Your task to perform on an android device: Search for sushi restaurants on Maps Image 0: 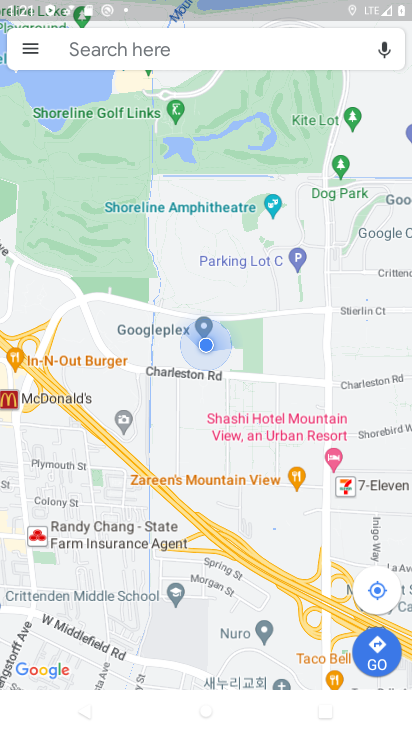
Step 0: click (182, 54)
Your task to perform on an android device: Search for sushi restaurants on Maps Image 1: 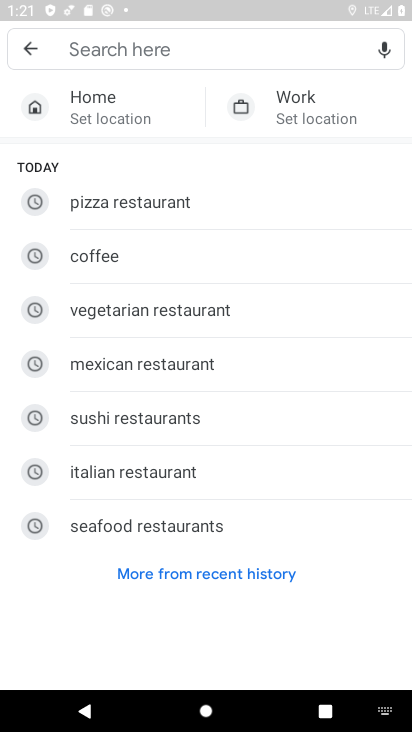
Step 1: type "sushi restaurants"
Your task to perform on an android device: Search for sushi restaurants on Maps Image 2: 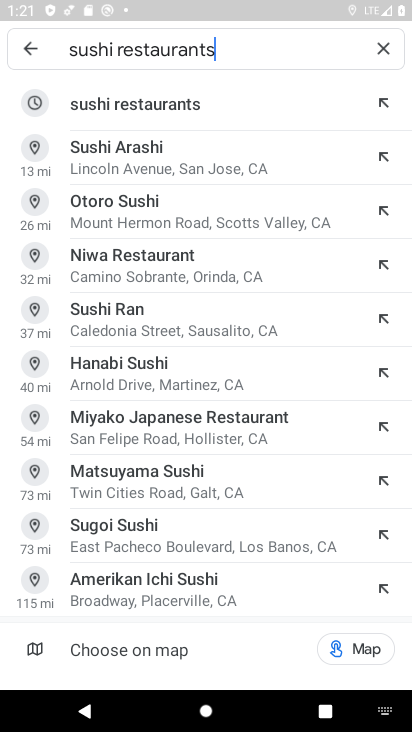
Step 2: click (134, 102)
Your task to perform on an android device: Search for sushi restaurants on Maps Image 3: 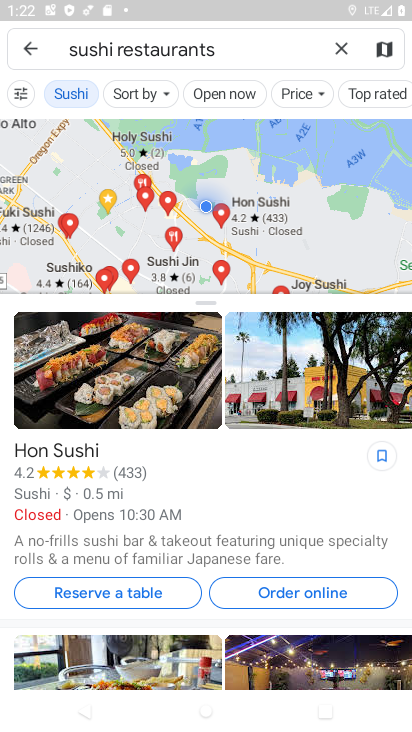
Step 3: task complete